Your task to perform on an android device: change notification settings in the gmail app Image 0: 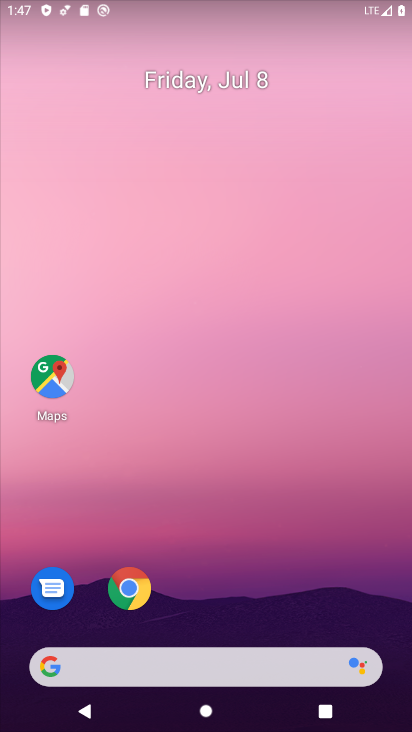
Step 0: drag from (205, 625) to (182, 6)
Your task to perform on an android device: change notification settings in the gmail app Image 1: 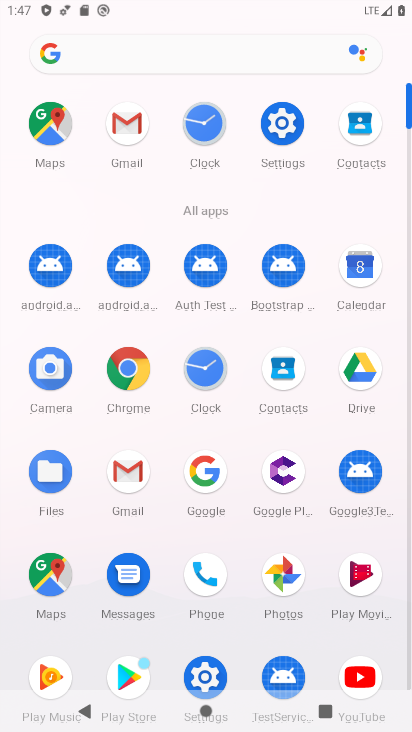
Step 1: click (131, 146)
Your task to perform on an android device: change notification settings in the gmail app Image 2: 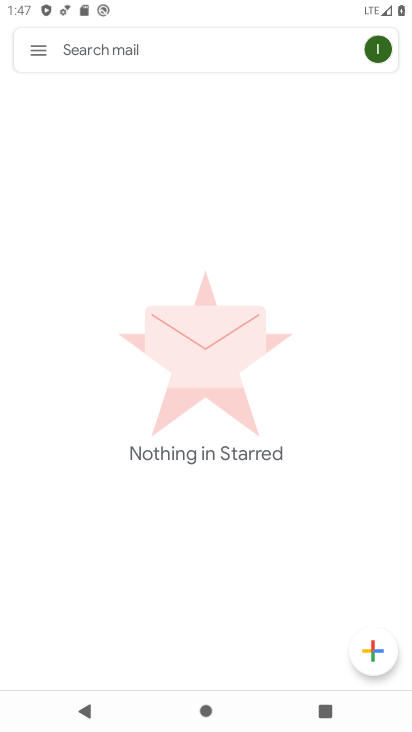
Step 2: click (42, 50)
Your task to perform on an android device: change notification settings in the gmail app Image 3: 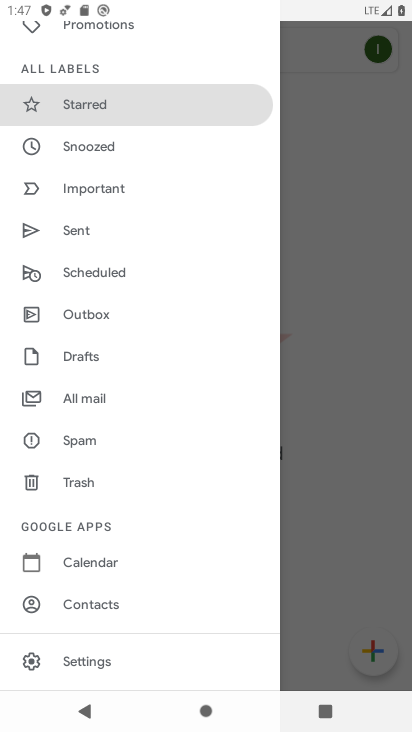
Step 3: click (89, 658)
Your task to perform on an android device: change notification settings in the gmail app Image 4: 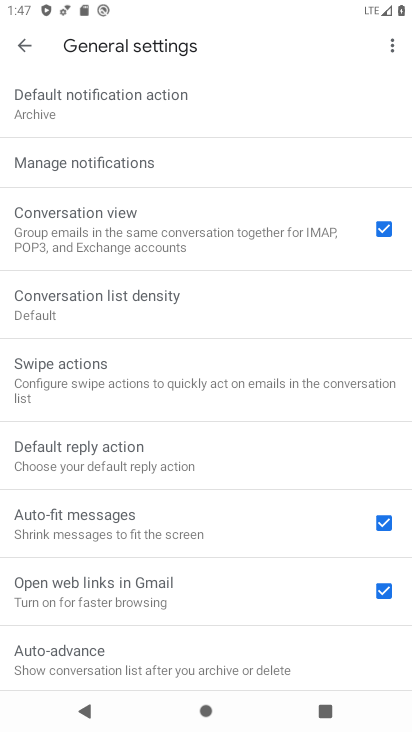
Step 4: click (54, 169)
Your task to perform on an android device: change notification settings in the gmail app Image 5: 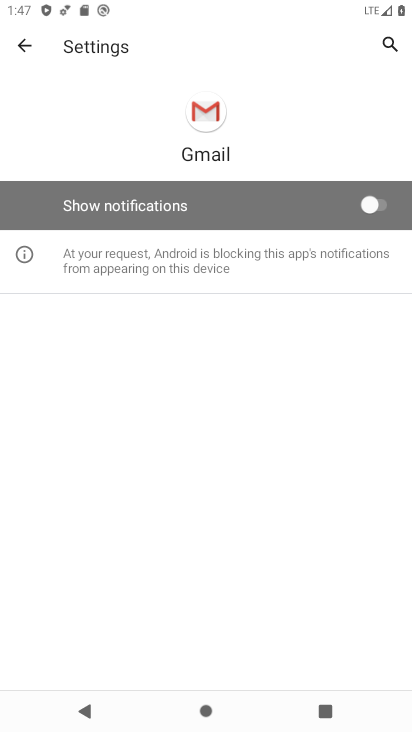
Step 5: click (364, 214)
Your task to perform on an android device: change notification settings in the gmail app Image 6: 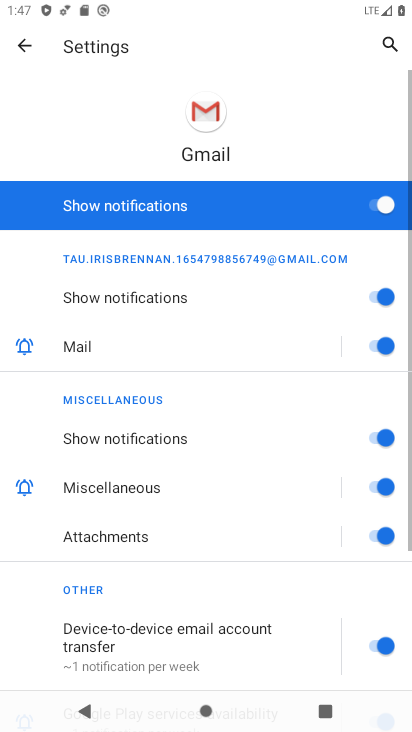
Step 6: task complete